Your task to perform on an android device: Check the weather Image 0: 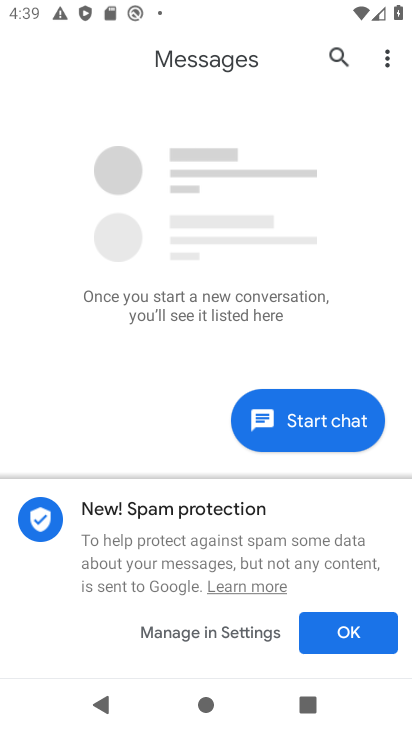
Step 0: press back button
Your task to perform on an android device: Check the weather Image 1: 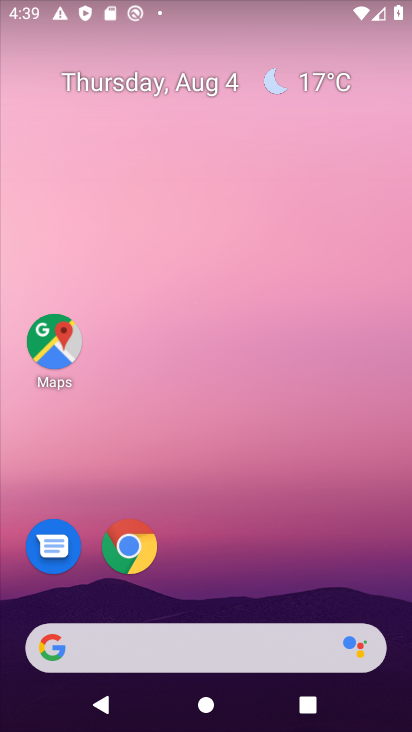
Step 1: drag from (186, 397) to (243, 42)
Your task to perform on an android device: Check the weather Image 2: 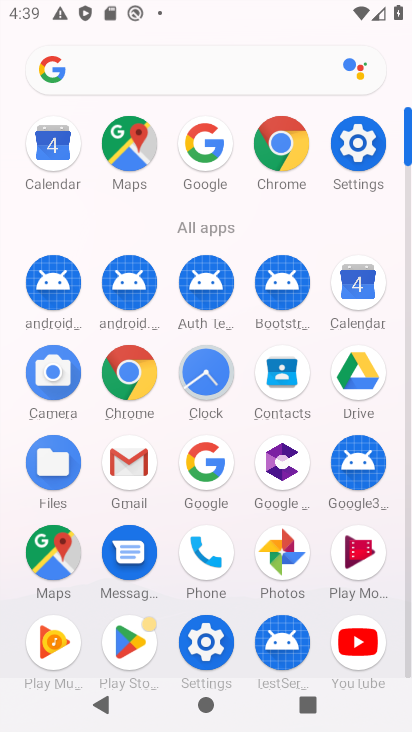
Step 2: click (205, 471)
Your task to perform on an android device: Check the weather Image 3: 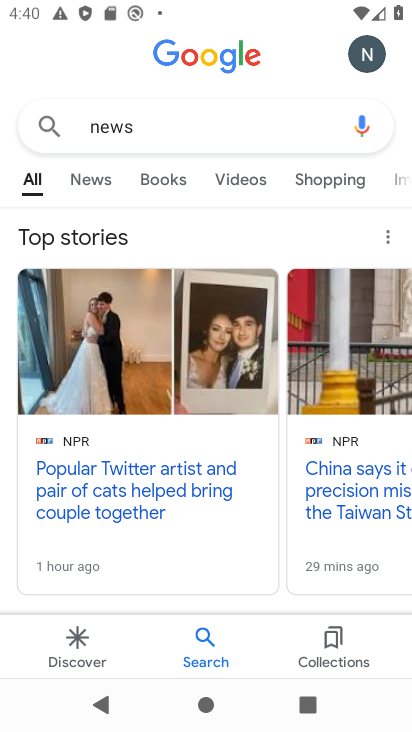
Step 3: click (190, 113)
Your task to perform on an android device: Check the weather Image 4: 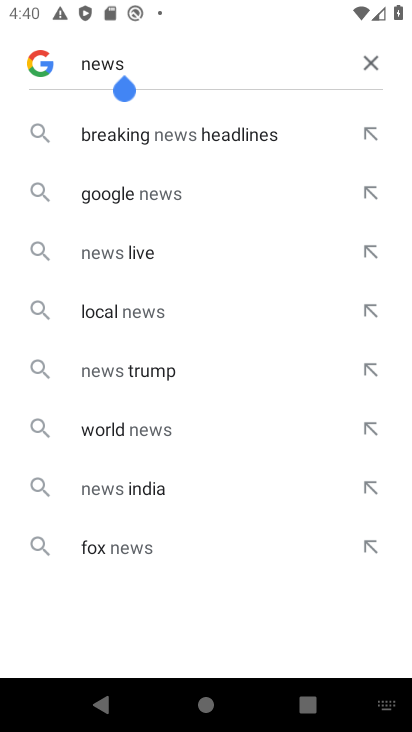
Step 4: click (378, 53)
Your task to perform on an android device: Check the weather Image 5: 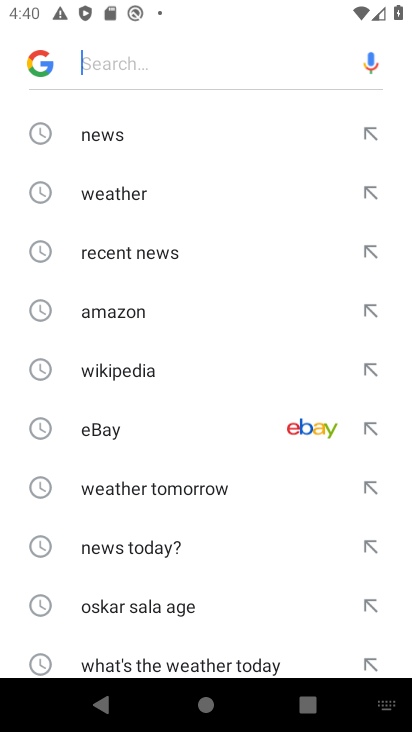
Step 5: click (126, 207)
Your task to perform on an android device: Check the weather Image 6: 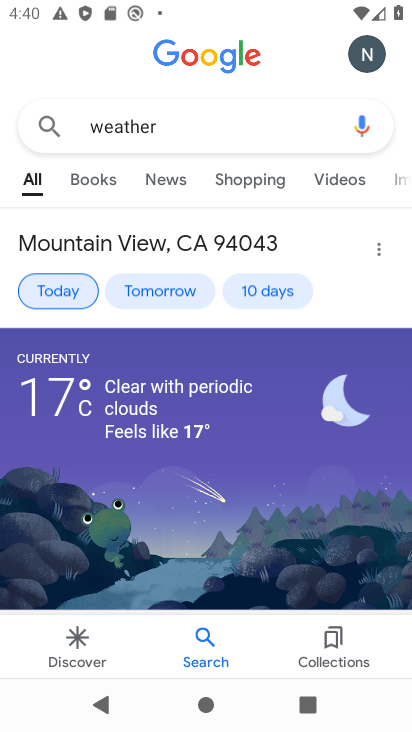
Step 6: task complete